Your task to perform on an android device: turn on data saver in the chrome app Image 0: 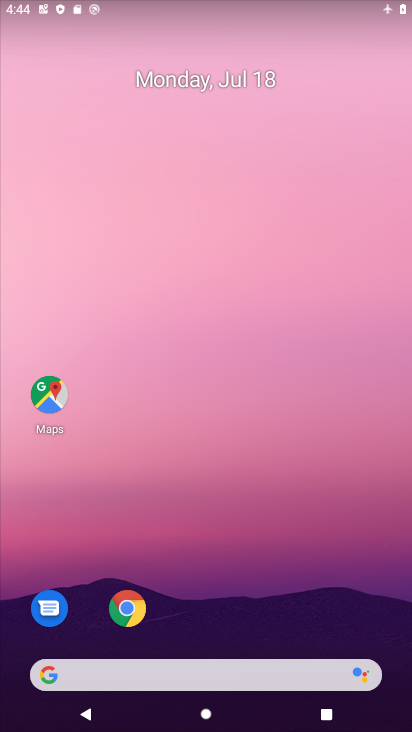
Step 0: drag from (297, 612) to (319, 112)
Your task to perform on an android device: turn on data saver in the chrome app Image 1: 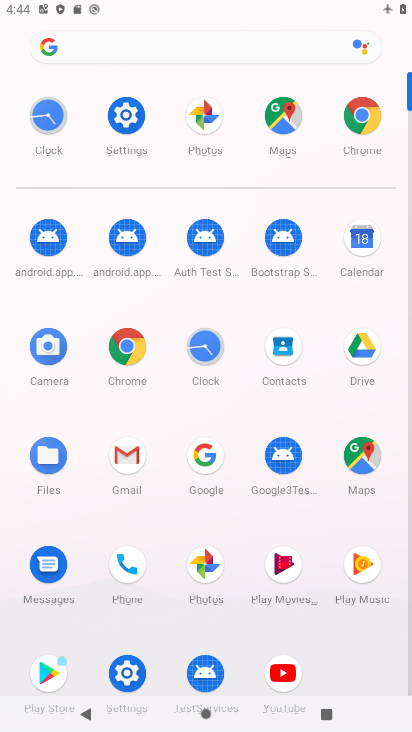
Step 1: click (365, 111)
Your task to perform on an android device: turn on data saver in the chrome app Image 2: 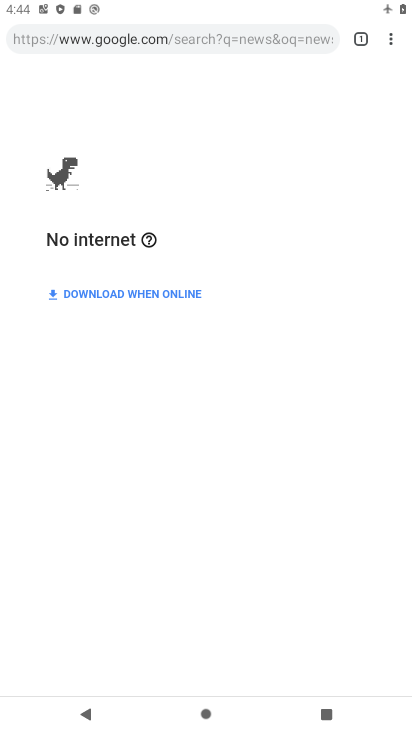
Step 2: drag from (394, 34) to (255, 432)
Your task to perform on an android device: turn on data saver in the chrome app Image 3: 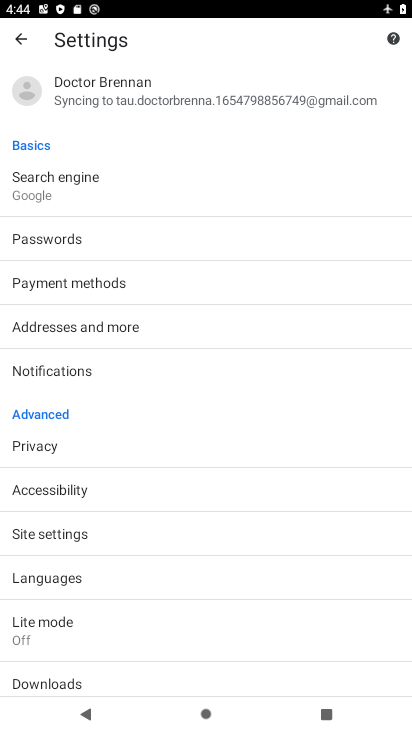
Step 3: click (58, 630)
Your task to perform on an android device: turn on data saver in the chrome app Image 4: 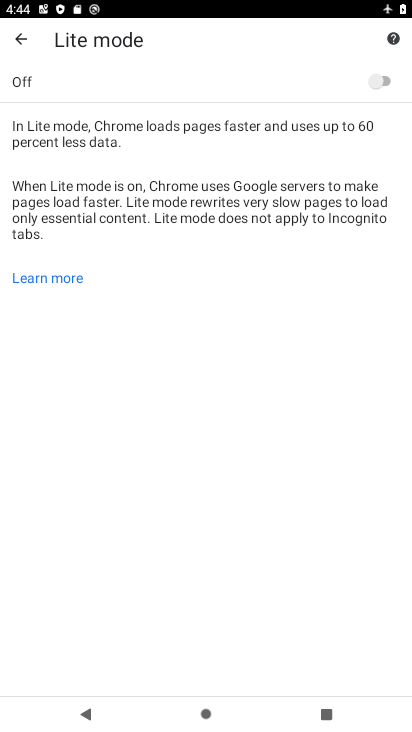
Step 4: click (367, 83)
Your task to perform on an android device: turn on data saver in the chrome app Image 5: 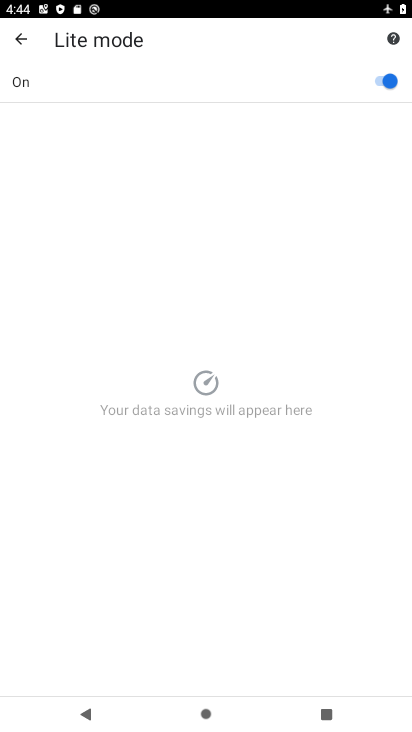
Step 5: task complete